Your task to perform on an android device: Open the calendar app, open the side menu, and click the "Day" option Image 0: 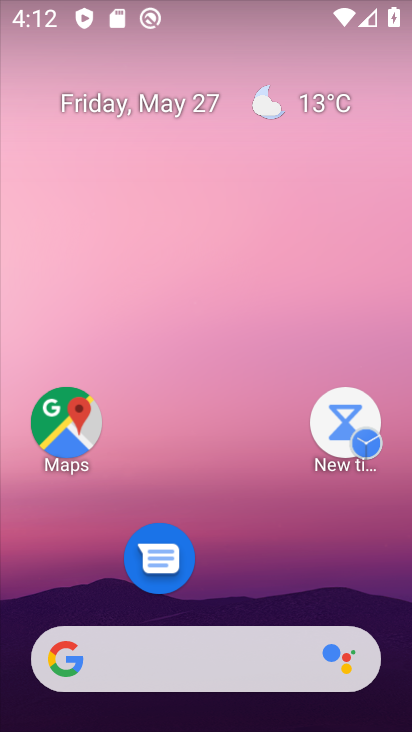
Step 0: drag from (258, 157) to (245, 13)
Your task to perform on an android device: Open the calendar app, open the side menu, and click the "Day" option Image 1: 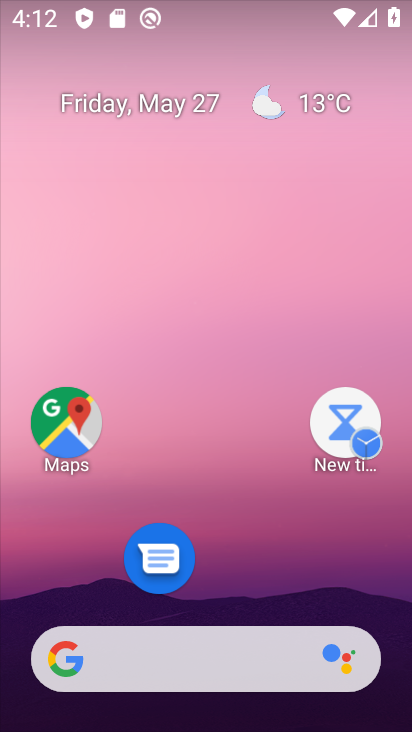
Step 1: drag from (256, 587) to (166, 150)
Your task to perform on an android device: Open the calendar app, open the side menu, and click the "Day" option Image 2: 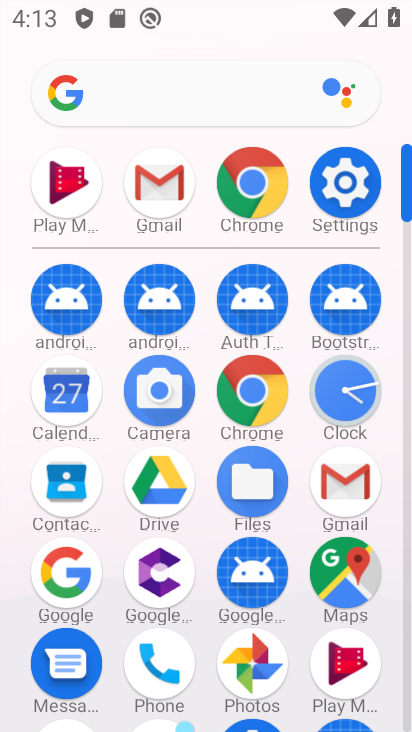
Step 2: click (68, 403)
Your task to perform on an android device: Open the calendar app, open the side menu, and click the "Day" option Image 3: 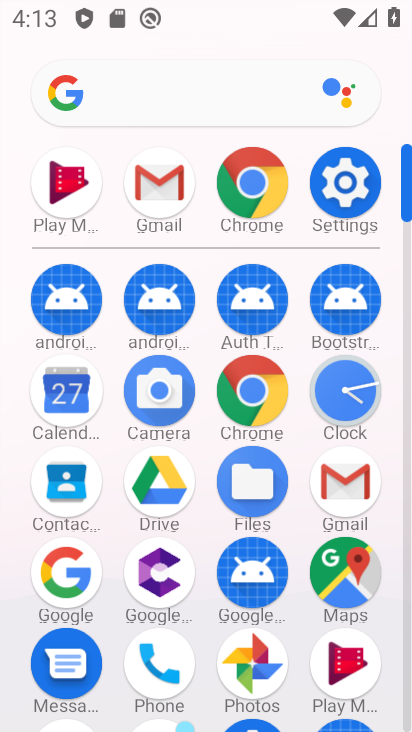
Step 3: click (68, 403)
Your task to perform on an android device: Open the calendar app, open the side menu, and click the "Day" option Image 4: 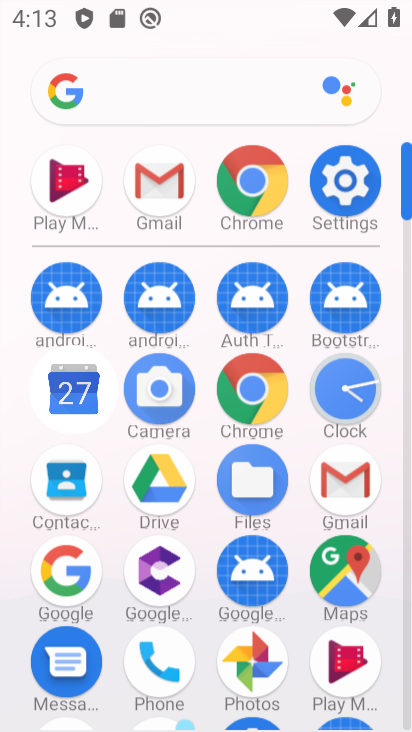
Step 4: click (67, 403)
Your task to perform on an android device: Open the calendar app, open the side menu, and click the "Day" option Image 5: 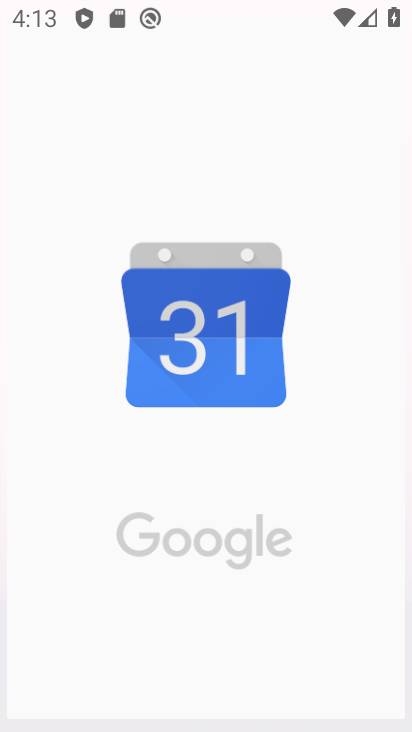
Step 5: click (67, 403)
Your task to perform on an android device: Open the calendar app, open the side menu, and click the "Day" option Image 6: 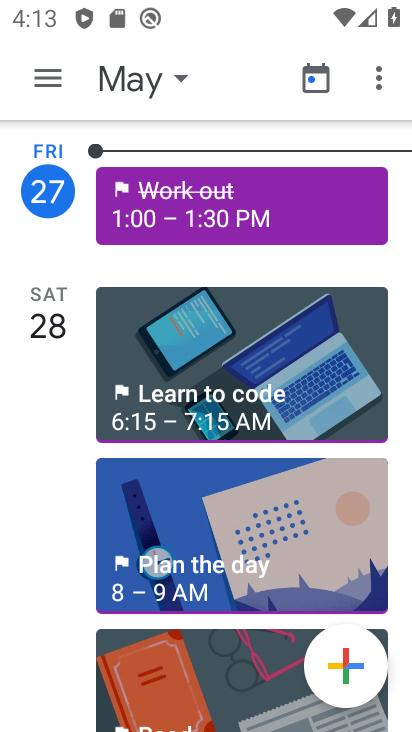
Step 6: click (67, 403)
Your task to perform on an android device: Open the calendar app, open the side menu, and click the "Day" option Image 7: 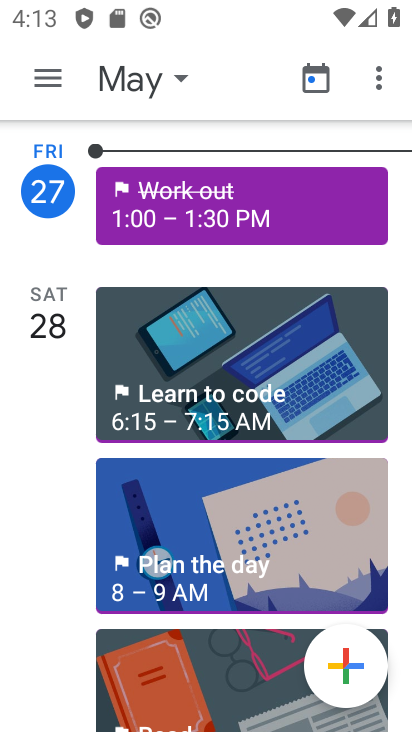
Step 7: click (57, 79)
Your task to perform on an android device: Open the calendar app, open the side menu, and click the "Day" option Image 8: 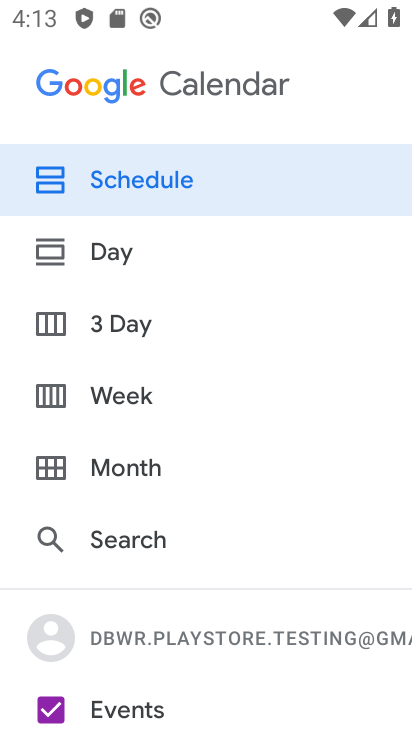
Step 8: click (102, 258)
Your task to perform on an android device: Open the calendar app, open the side menu, and click the "Day" option Image 9: 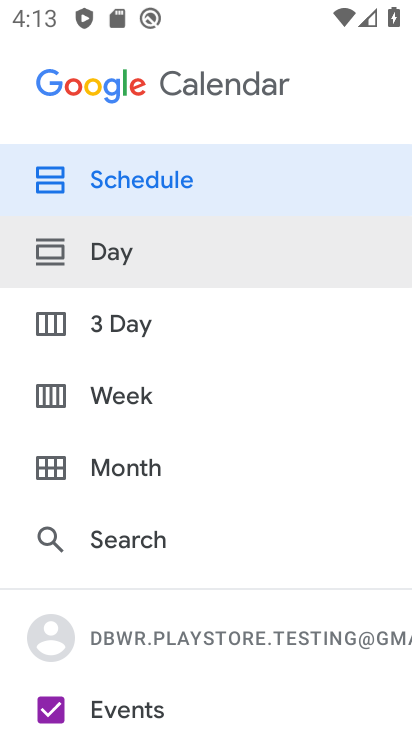
Step 9: click (102, 258)
Your task to perform on an android device: Open the calendar app, open the side menu, and click the "Day" option Image 10: 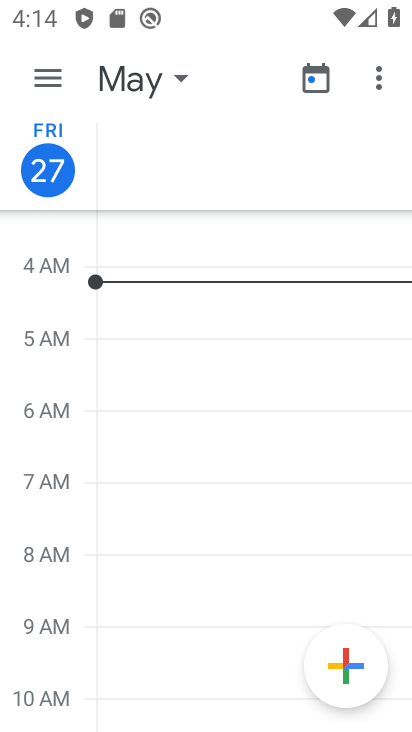
Step 10: click (41, 84)
Your task to perform on an android device: Open the calendar app, open the side menu, and click the "Day" option Image 11: 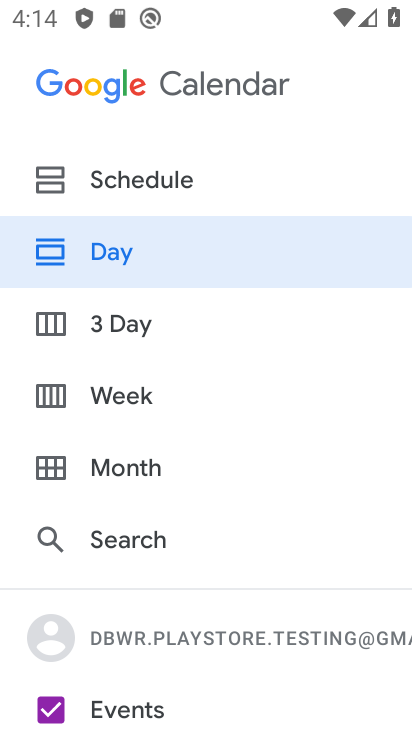
Step 11: click (134, 255)
Your task to perform on an android device: Open the calendar app, open the side menu, and click the "Day" option Image 12: 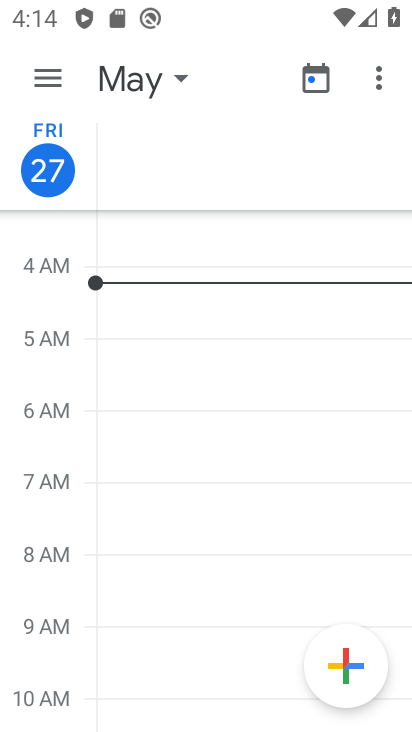
Step 12: task complete